Your task to perform on an android device: Open Chrome and go to settings Image 0: 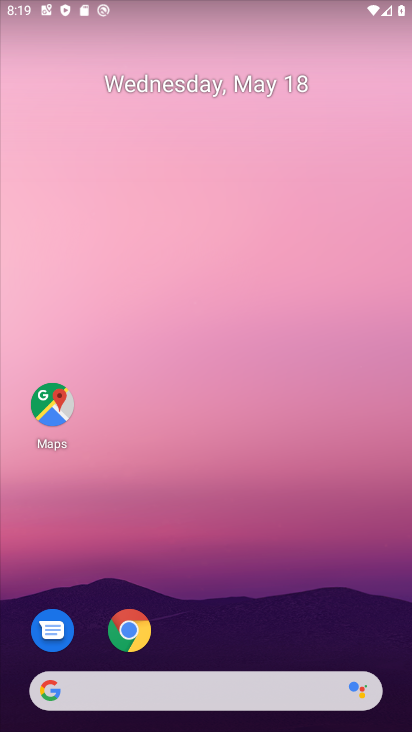
Step 0: press home button
Your task to perform on an android device: Open Chrome and go to settings Image 1: 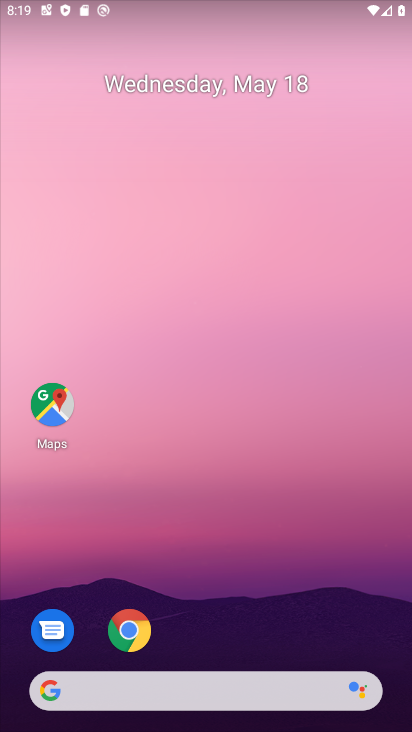
Step 1: click (122, 634)
Your task to perform on an android device: Open Chrome and go to settings Image 2: 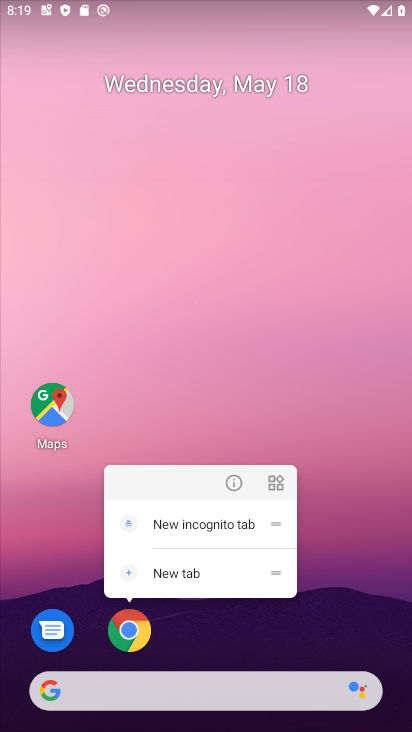
Step 2: click (139, 635)
Your task to perform on an android device: Open Chrome and go to settings Image 3: 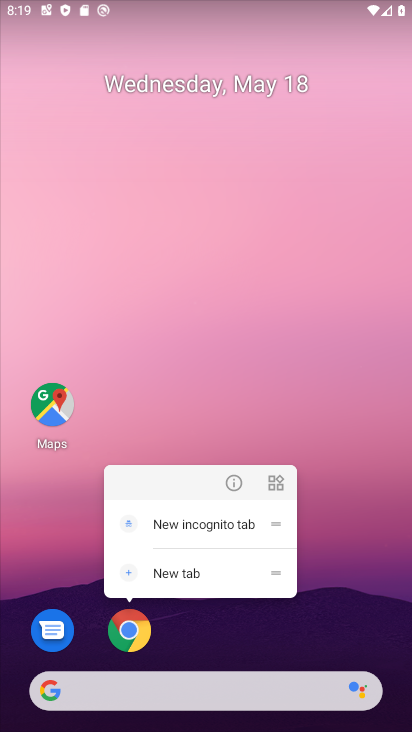
Step 3: click (131, 637)
Your task to perform on an android device: Open Chrome and go to settings Image 4: 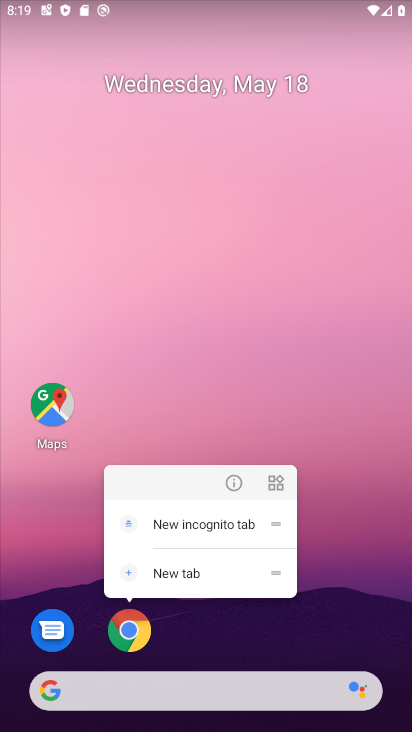
Step 4: click (129, 637)
Your task to perform on an android device: Open Chrome and go to settings Image 5: 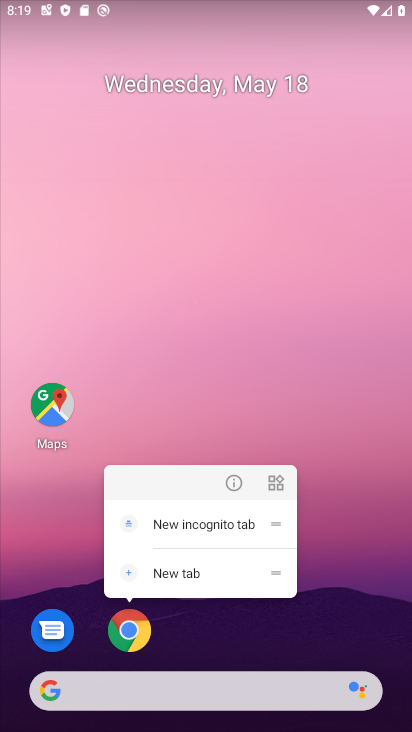
Step 5: click (129, 637)
Your task to perform on an android device: Open Chrome and go to settings Image 6: 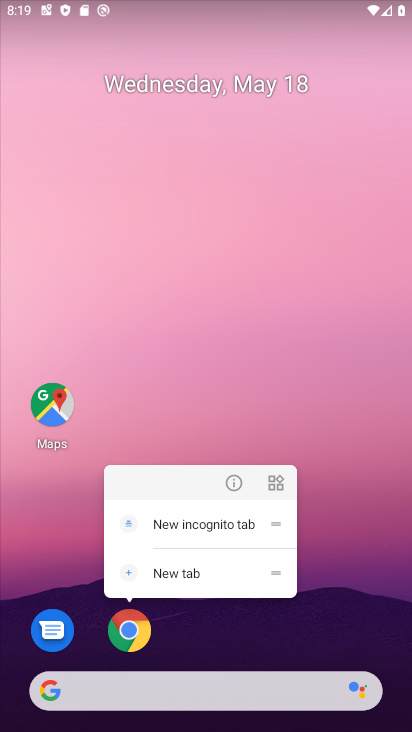
Step 6: click (123, 633)
Your task to perform on an android device: Open Chrome and go to settings Image 7: 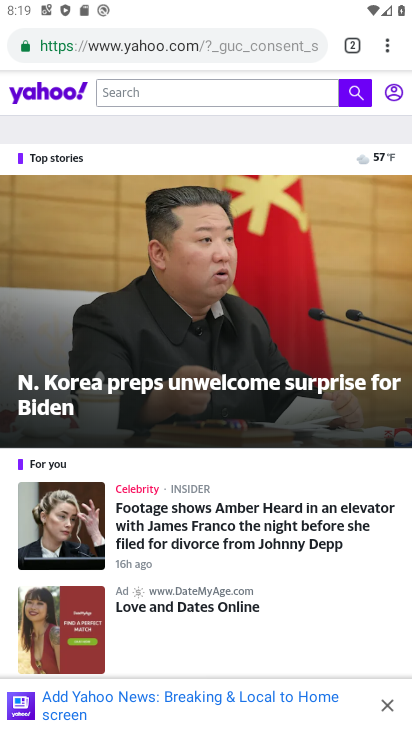
Step 7: task complete